Your task to perform on an android device: change timer sound Image 0: 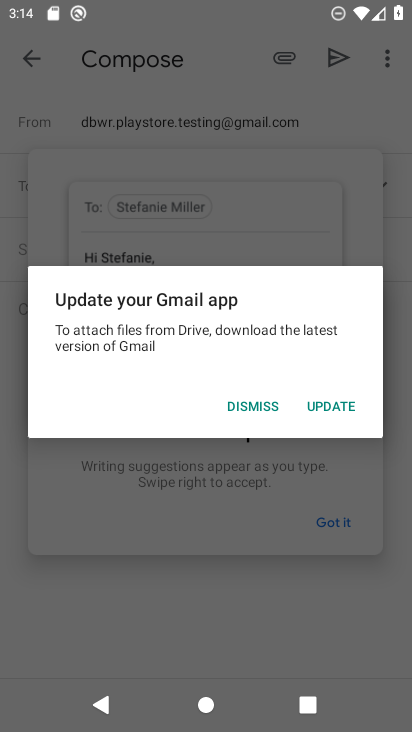
Step 0: press home button
Your task to perform on an android device: change timer sound Image 1: 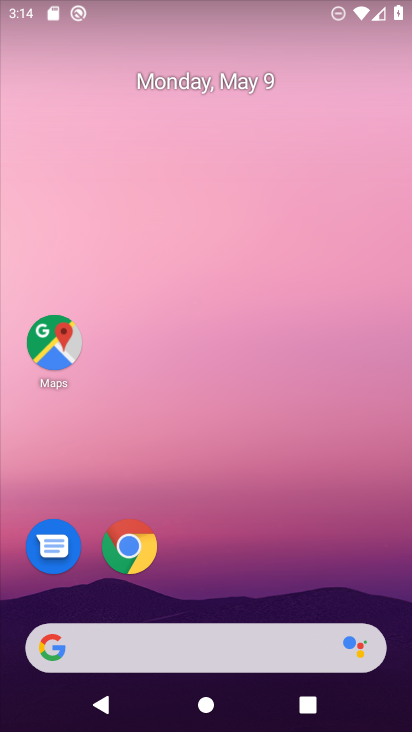
Step 1: drag from (204, 529) to (236, 280)
Your task to perform on an android device: change timer sound Image 2: 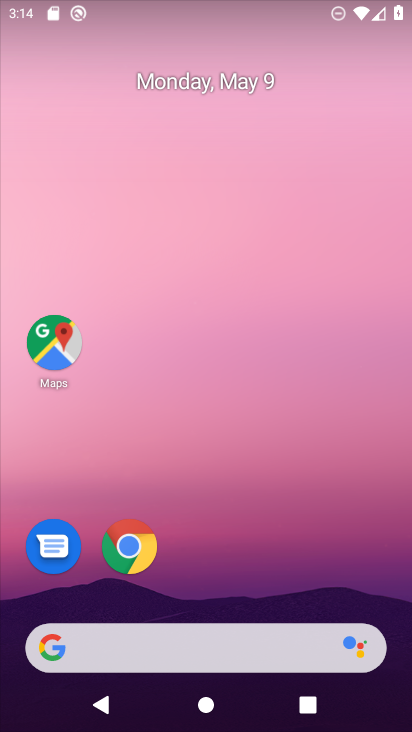
Step 2: drag from (189, 598) to (280, 112)
Your task to perform on an android device: change timer sound Image 3: 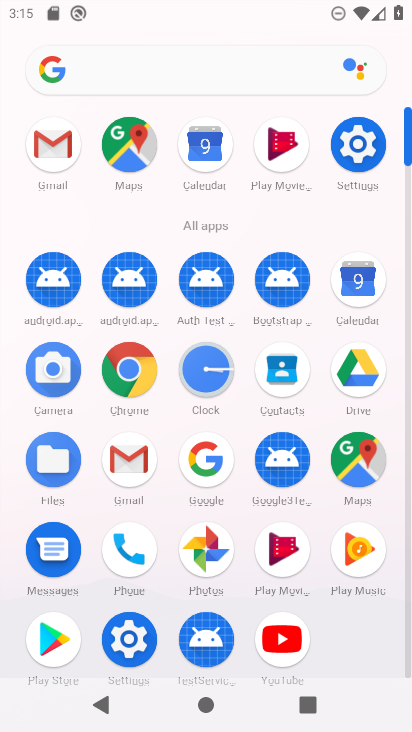
Step 3: click (210, 370)
Your task to perform on an android device: change timer sound Image 4: 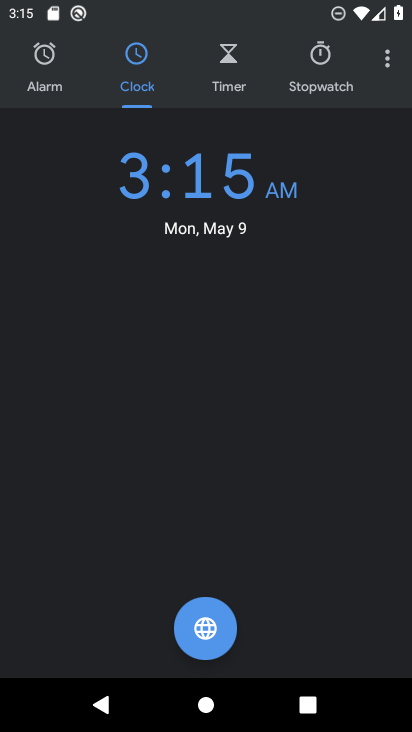
Step 4: click (387, 60)
Your task to perform on an android device: change timer sound Image 5: 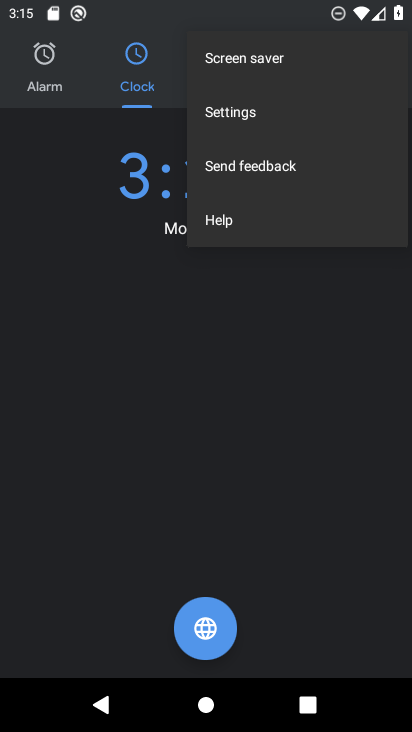
Step 5: click (246, 118)
Your task to perform on an android device: change timer sound Image 6: 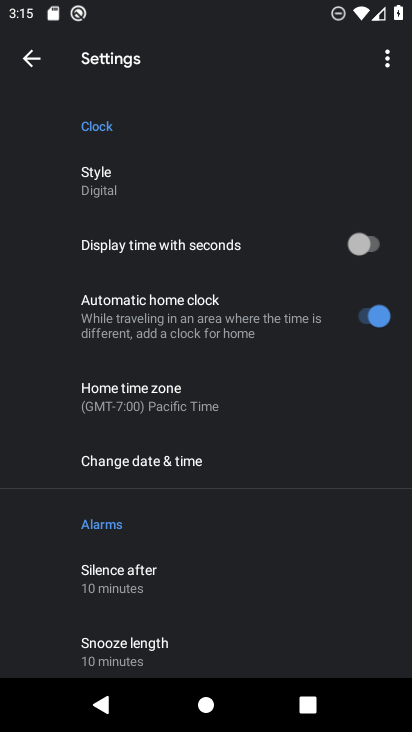
Step 6: drag from (182, 626) to (217, 335)
Your task to perform on an android device: change timer sound Image 7: 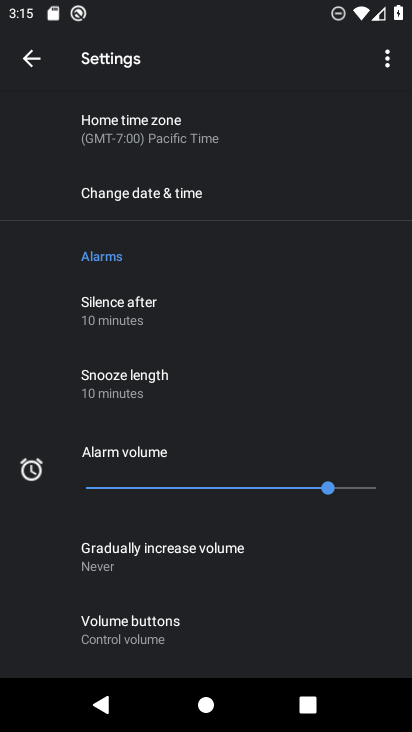
Step 7: drag from (187, 554) to (242, 258)
Your task to perform on an android device: change timer sound Image 8: 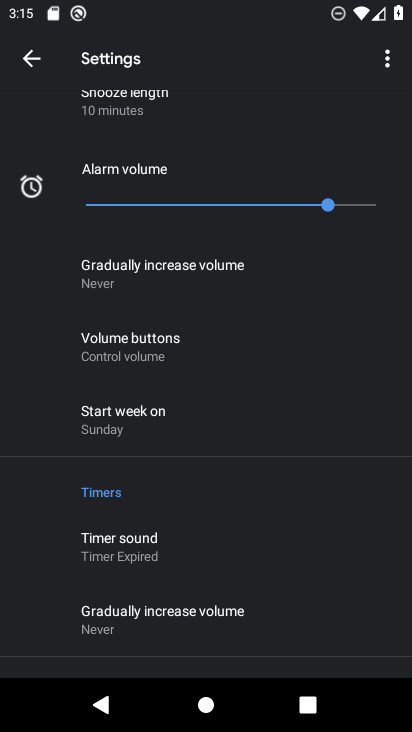
Step 8: drag from (192, 533) to (267, 95)
Your task to perform on an android device: change timer sound Image 9: 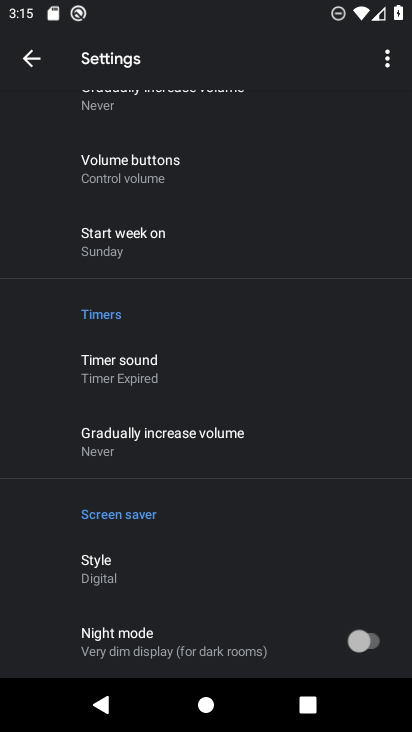
Step 9: click (176, 362)
Your task to perform on an android device: change timer sound Image 10: 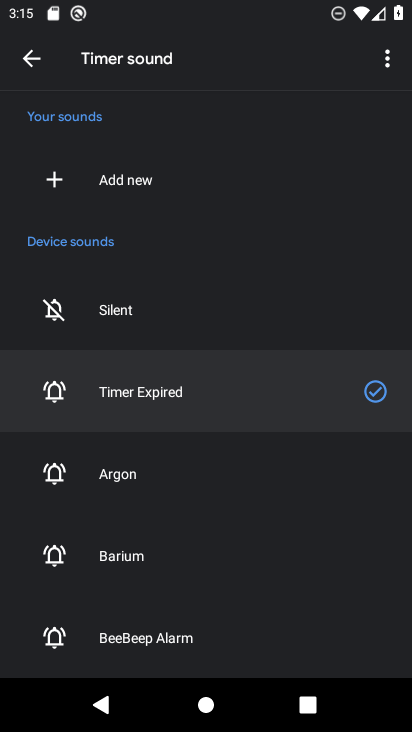
Step 10: click (202, 482)
Your task to perform on an android device: change timer sound Image 11: 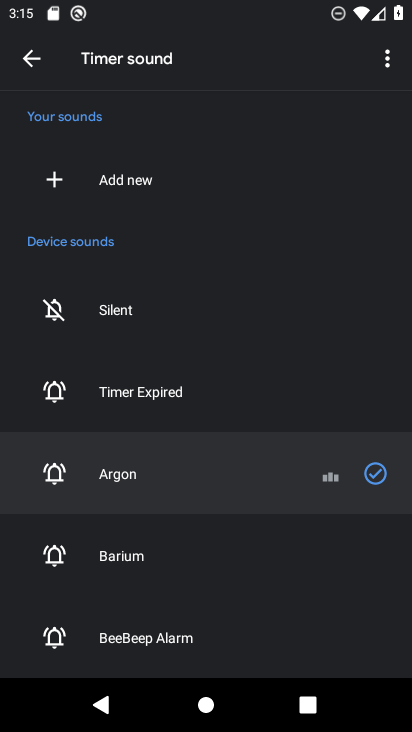
Step 11: task complete